Your task to perform on an android device: turn on wifi Image 0: 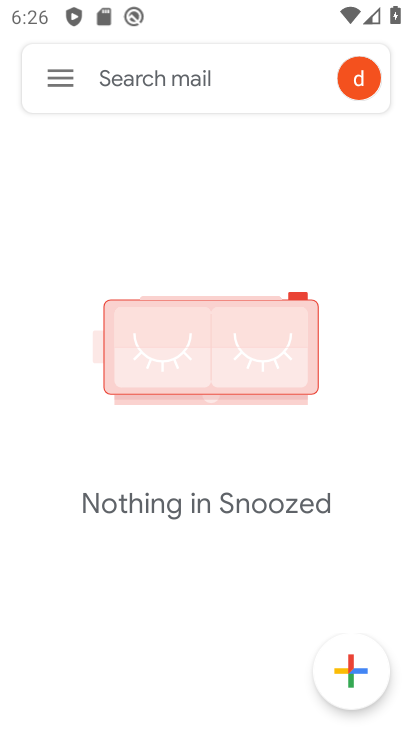
Step 0: press home button
Your task to perform on an android device: turn on wifi Image 1: 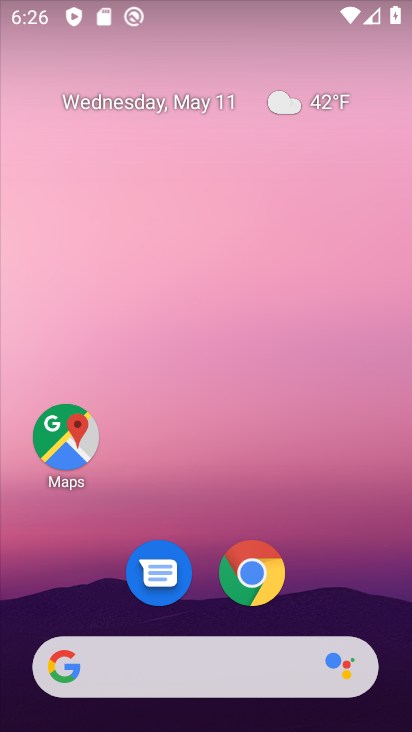
Step 1: drag from (321, 575) to (307, 231)
Your task to perform on an android device: turn on wifi Image 2: 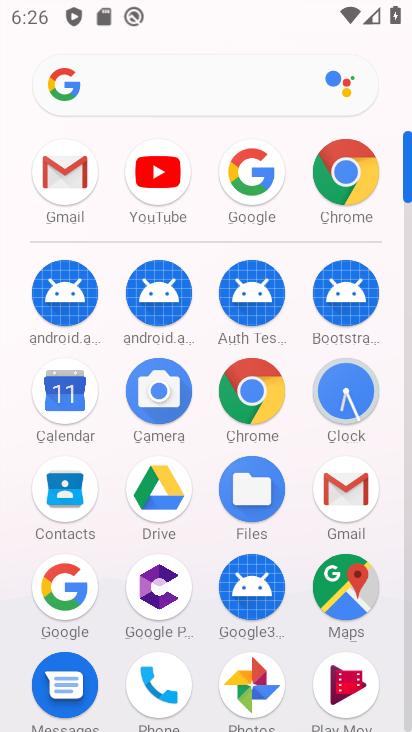
Step 2: drag from (306, 638) to (318, 383)
Your task to perform on an android device: turn on wifi Image 3: 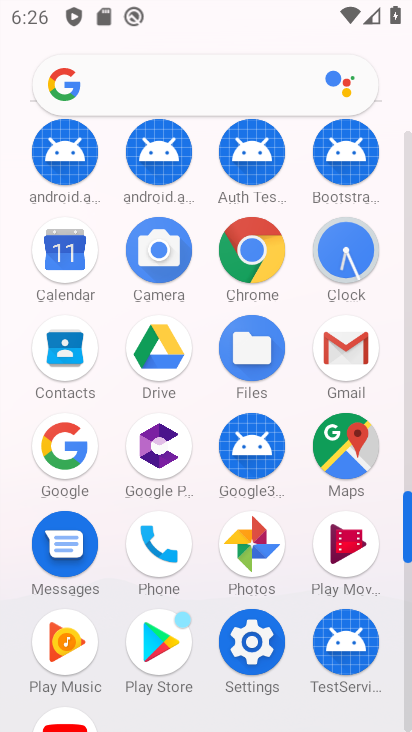
Step 3: click (251, 681)
Your task to perform on an android device: turn on wifi Image 4: 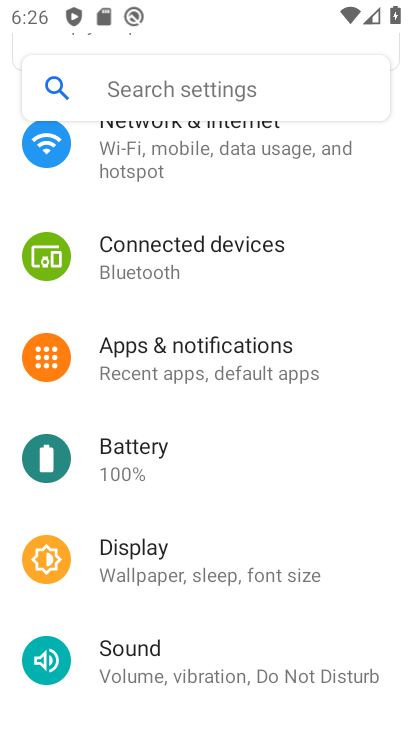
Step 4: click (157, 154)
Your task to perform on an android device: turn on wifi Image 5: 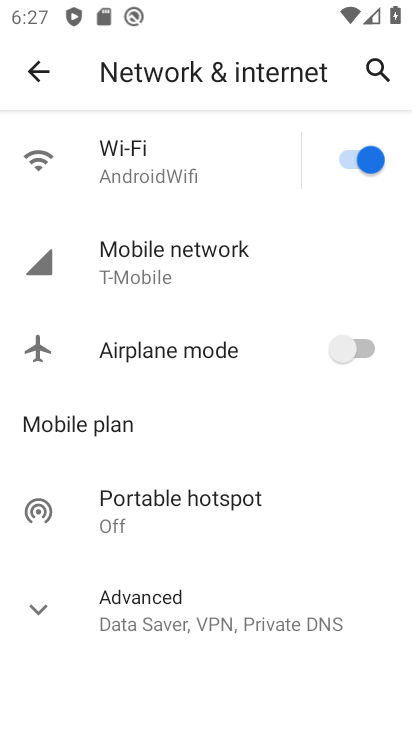
Step 5: task complete